Your task to perform on an android device: toggle notifications settings in the gmail app Image 0: 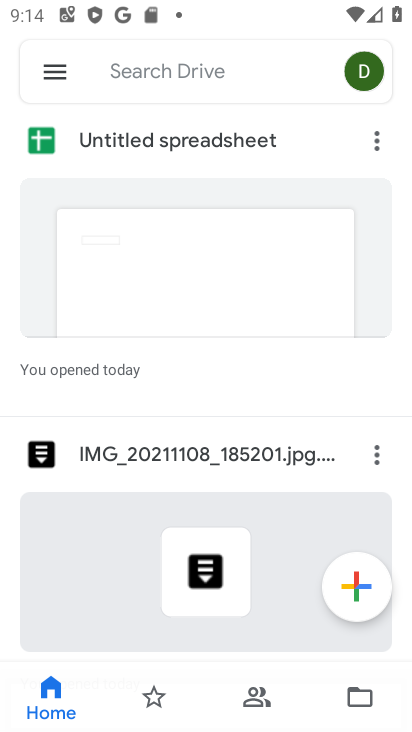
Step 0: press home button
Your task to perform on an android device: toggle notifications settings in the gmail app Image 1: 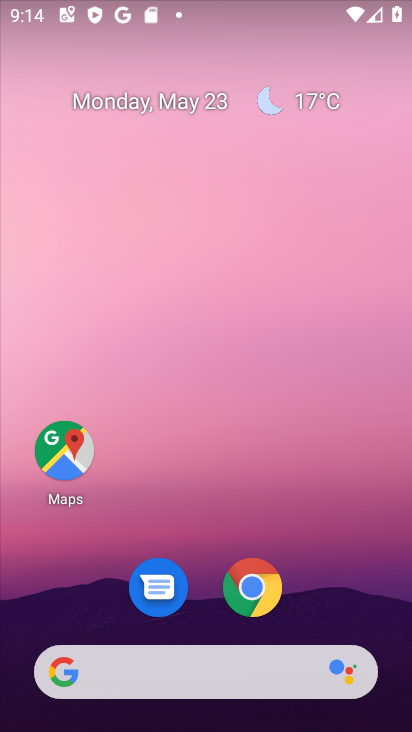
Step 1: drag from (193, 526) to (261, 32)
Your task to perform on an android device: toggle notifications settings in the gmail app Image 2: 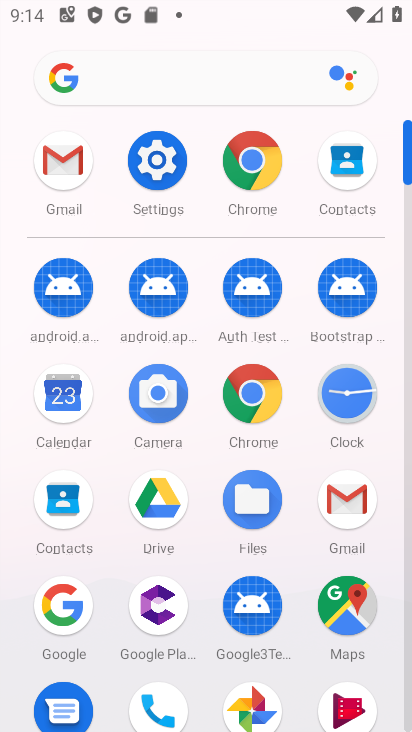
Step 2: click (54, 149)
Your task to perform on an android device: toggle notifications settings in the gmail app Image 3: 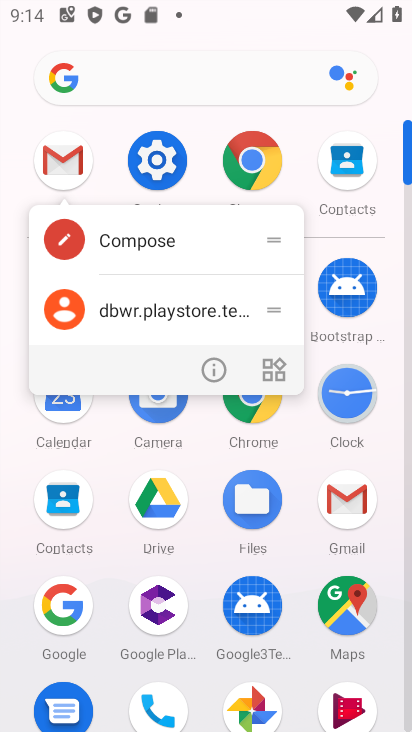
Step 3: click (215, 363)
Your task to perform on an android device: toggle notifications settings in the gmail app Image 4: 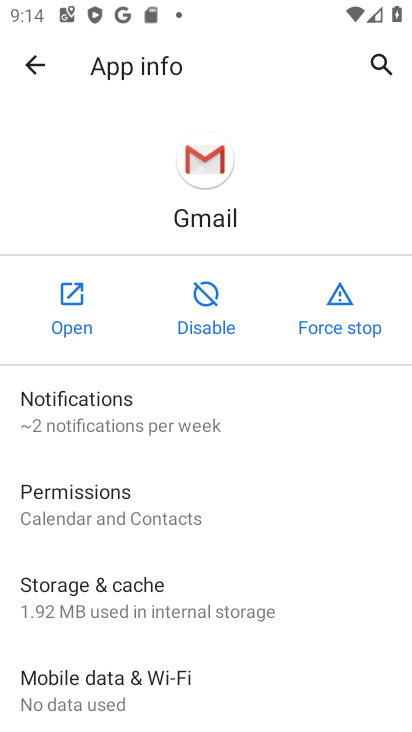
Step 4: click (132, 396)
Your task to perform on an android device: toggle notifications settings in the gmail app Image 5: 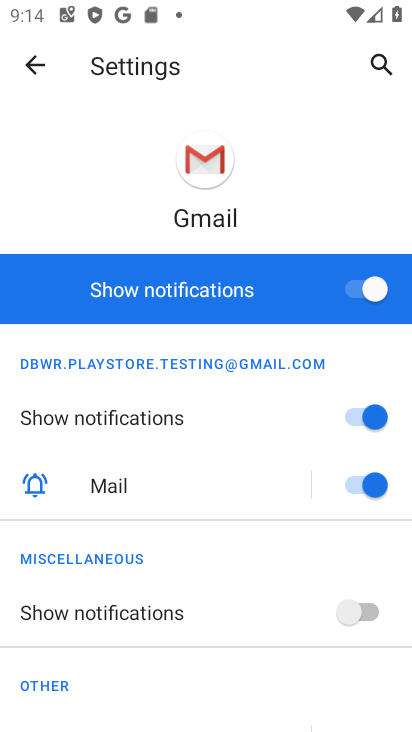
Step 5: click (375, 282)
Your task to perform on an android device: toggle notifications settings in the gmail app Image 6: 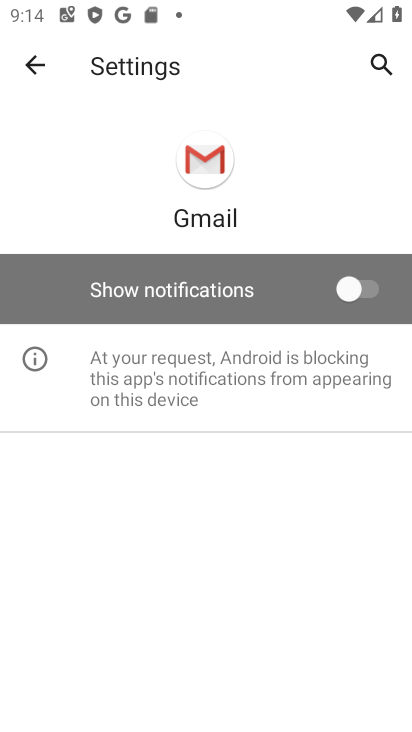
Step 6: task complete